Your task to perform on an android device: Open Google Maps Image 0: 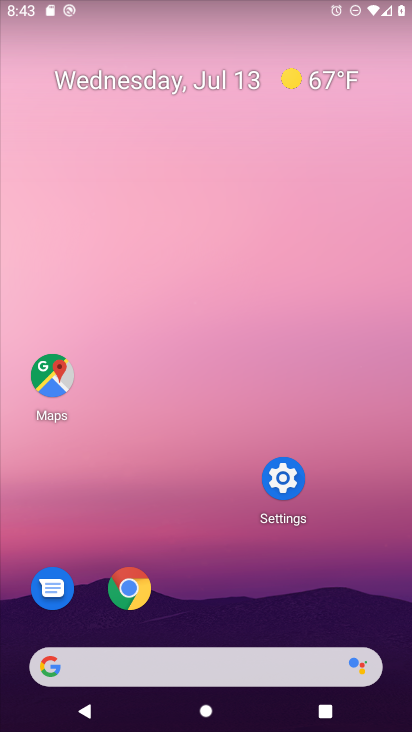
Step 0: click (53, 377)
Your task to perform on an android device: Open Google Maps Image 1: 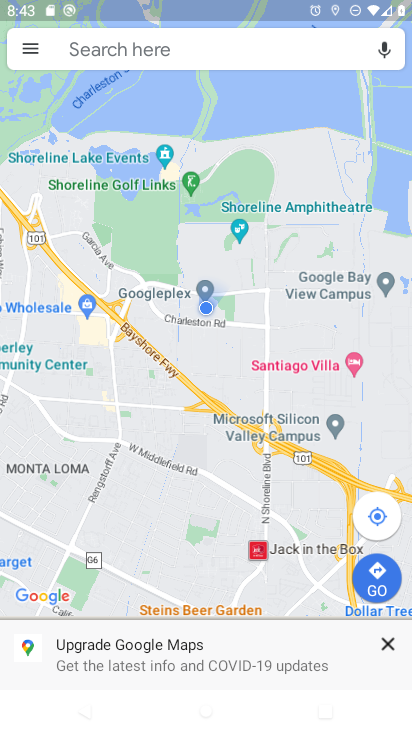
Step 1: task complete